Your task to perform on an android device: check data usage Image 0: 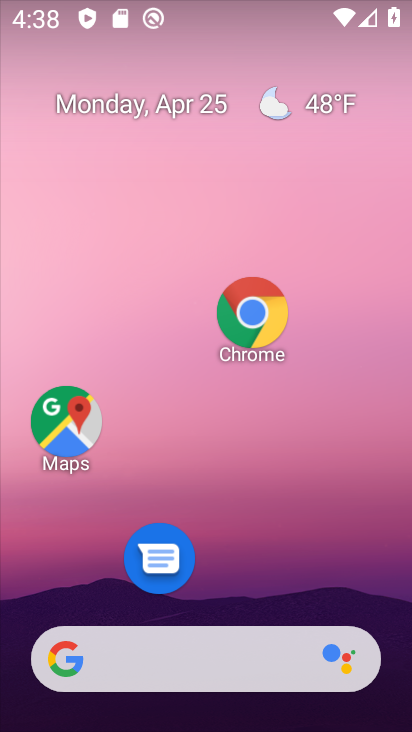
Step 0: drag from (283, 542) to (358, 48)
Your task to perform on an android device: check data usage Image 1: 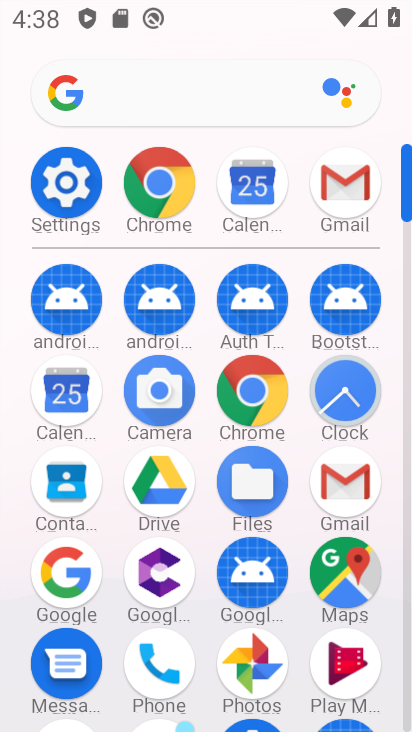
Step 1: click (62, 178)
Your task to perform on an android device: check data usage Image 2: 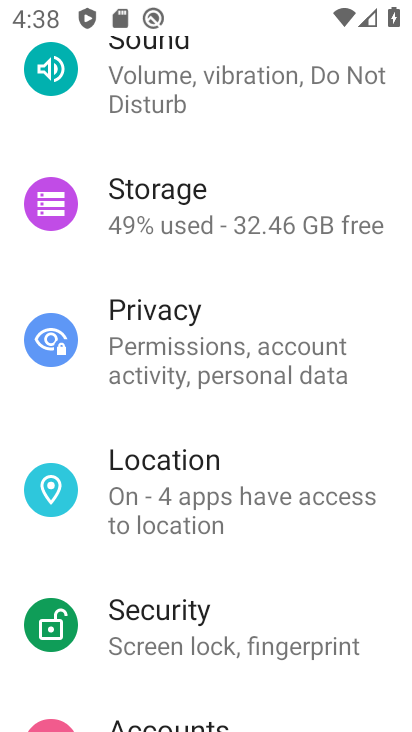
Step 2: drag from (269, 301) to (259, 590)
Your task to perform on an android device: check data usage Image 3: 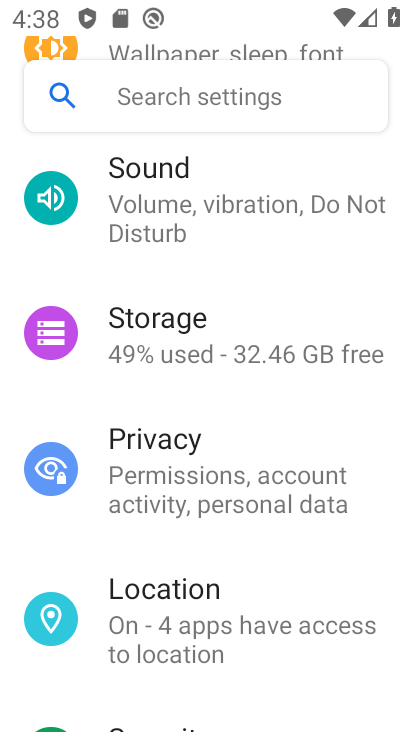
Step 3: drag from (285, 276) to (286, 639)
Your task to perform on an android device: check data usage Image 4: 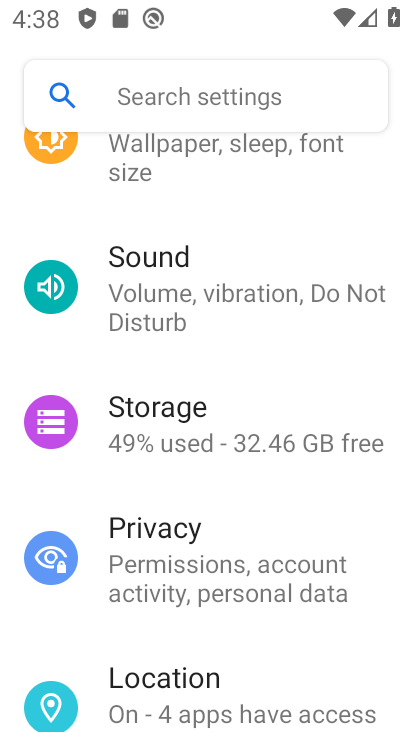
Step 4: drag from (344, 246) to (299, 697)
Your task to perform on an android device: check data usage Image 5: 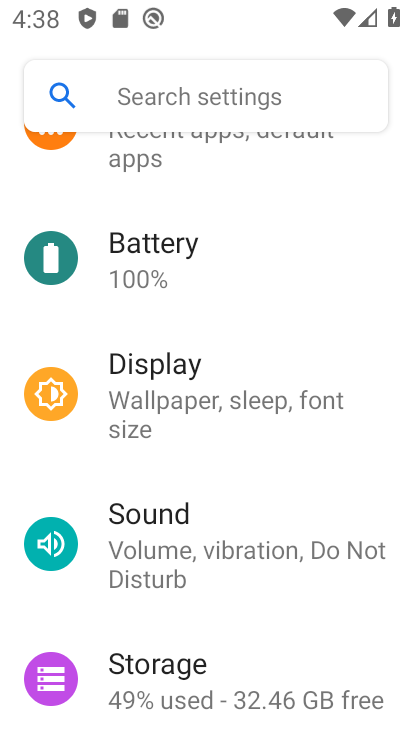
Step 5: drag from (342, 283) to (274, 684)
Your task to perform on an android device: check data usage Image 6: 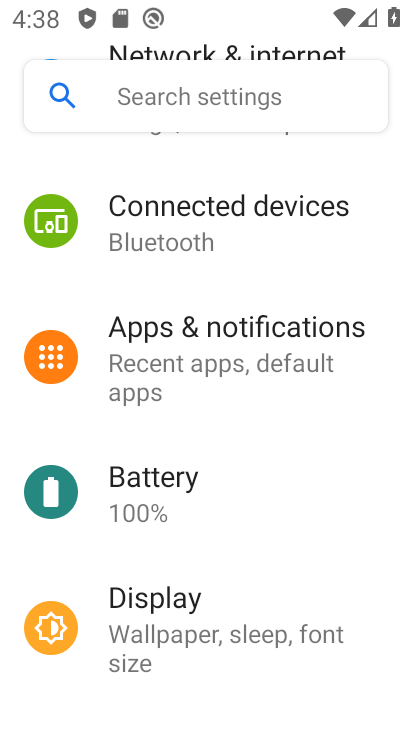
Step 6: drag from (325, 172) to (315, 711)
Your task to perform on an android device: check data usage Image 7: 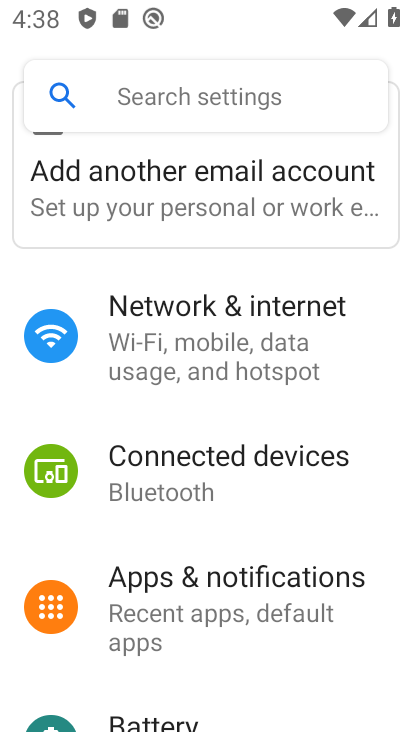
Step 7: drag from (286, 379) to (241, 721)
Your task to perform on an android device: check data usage Image 8: 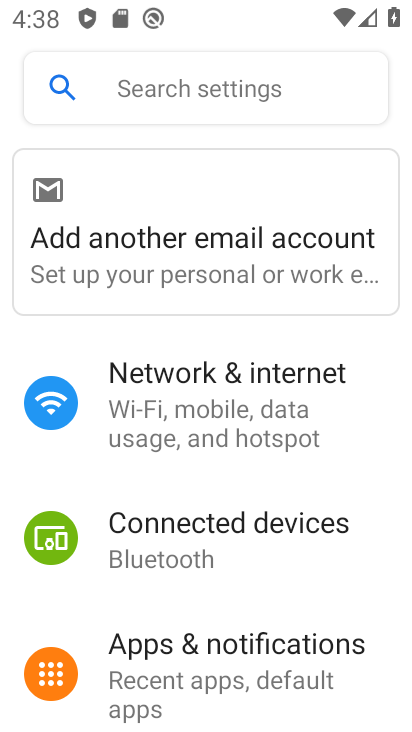
Step 8: click (211, 418)
Your task to perform on an android device: check data usage Image 9: 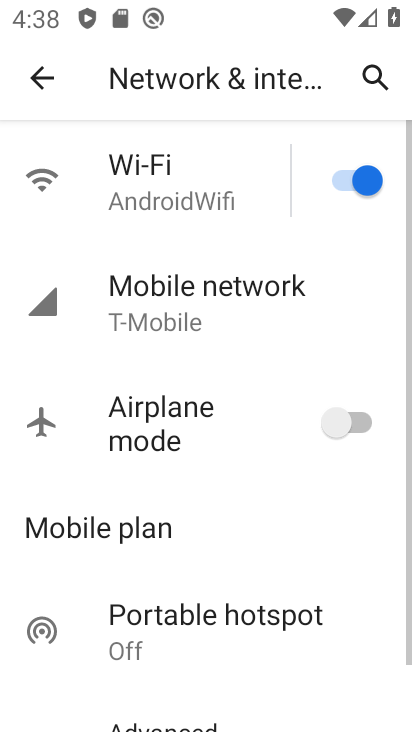
Step 9: click (169, 325)
Your task to perform on an android device: check data usage Image 10: 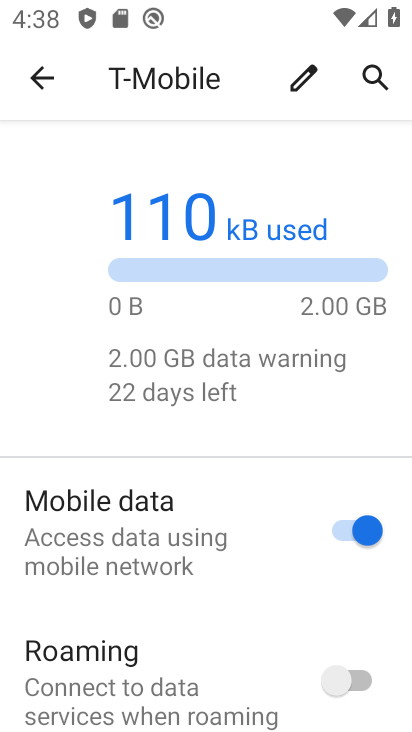
Step 10: task complete